Your task to perform on an android device: Do I have any events tomorrow? Image 0: 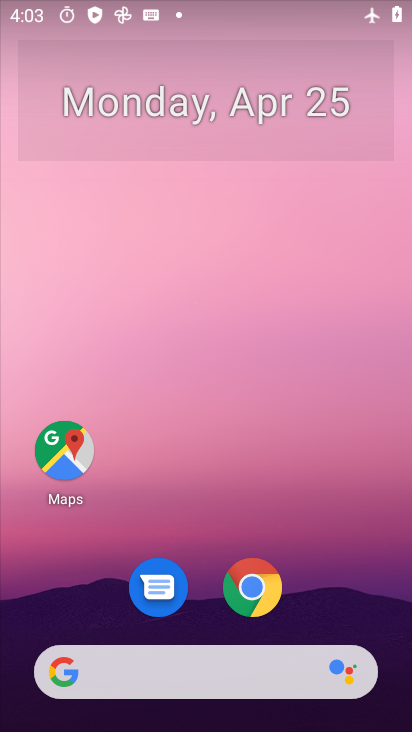
Step 0: click (317, 117)
Your task to perform on an android device: Do I have any events tomorrow? Image 1: 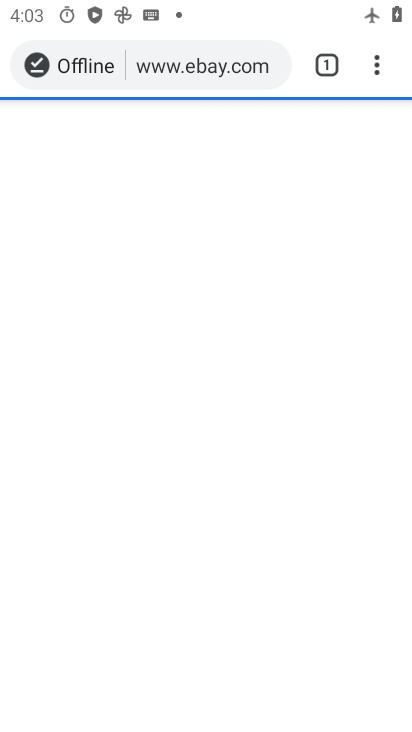
Step 1: press home button
Your task to perform on an android device: Do I have any events tomorrow? Image 2: 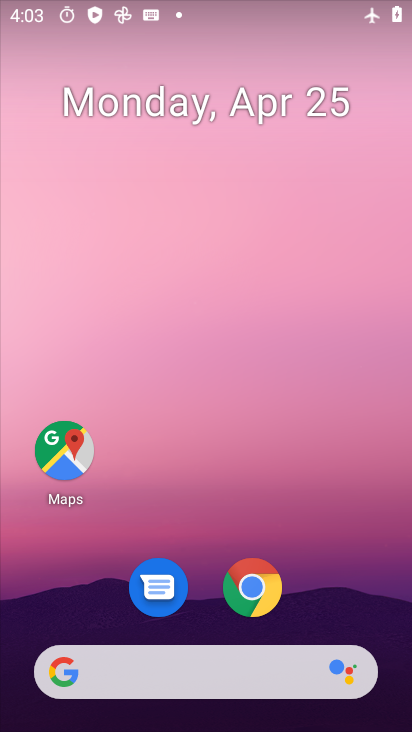
Step 2: drag from (340, 550) to (229, 78)
Your task to perform on an android device: Do I have any events tomorrow? Image 3: 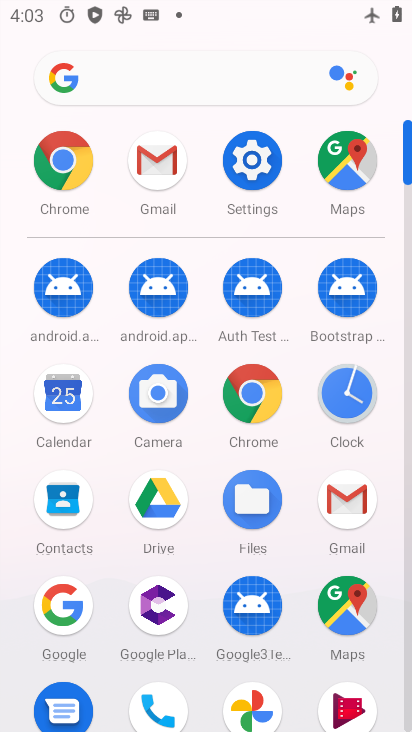
Step 3: click (59, 387)
Your task to perform on an android device: Do I have any events tomorrow? Image 4: 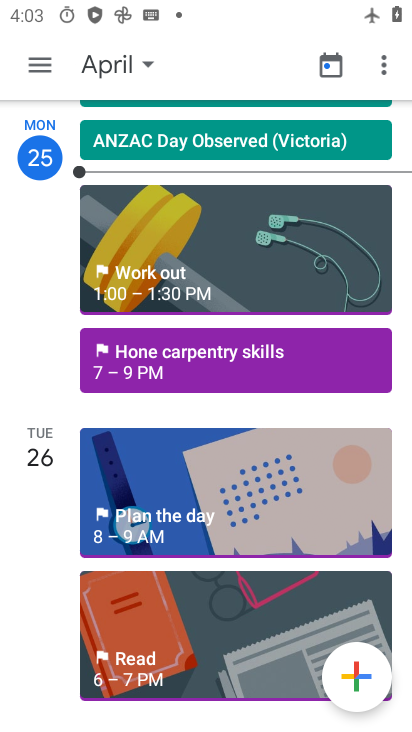
Step 4: task complete